Your task to perform on an android device: Toggle the flashlight Image 0: 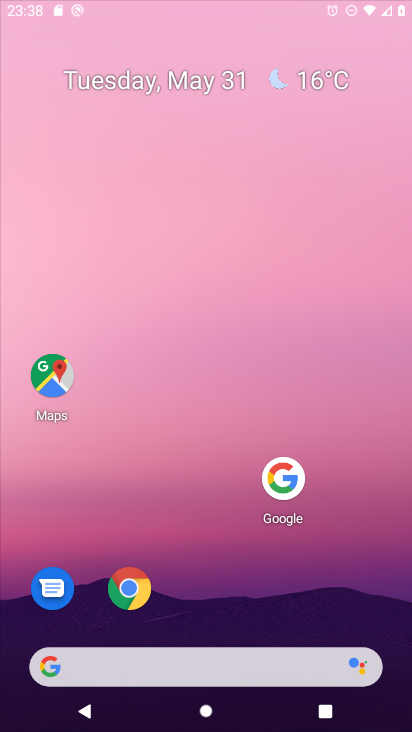
Step 0: press home button
Your task to perform on an android device: Toggle the flashlight Image 1: 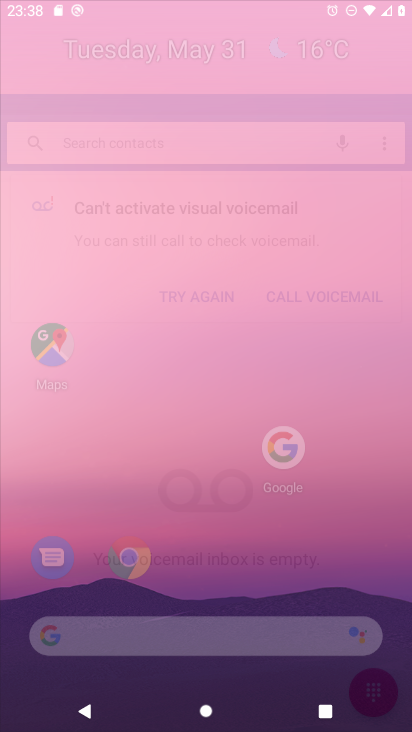
Step 1: click (141, 589)
Your task to perform on an android device: Toggle the flashlight Image 2: 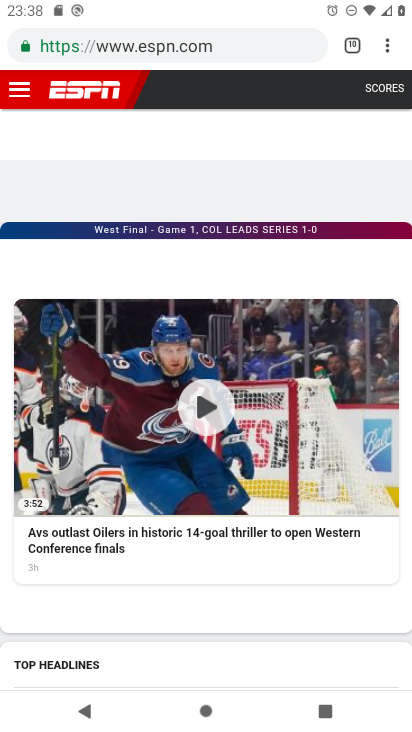
Step 2: task complete